Your task to perform on an android device: Open Google Chrome and click the shortcut for Amazon.com Image 0: 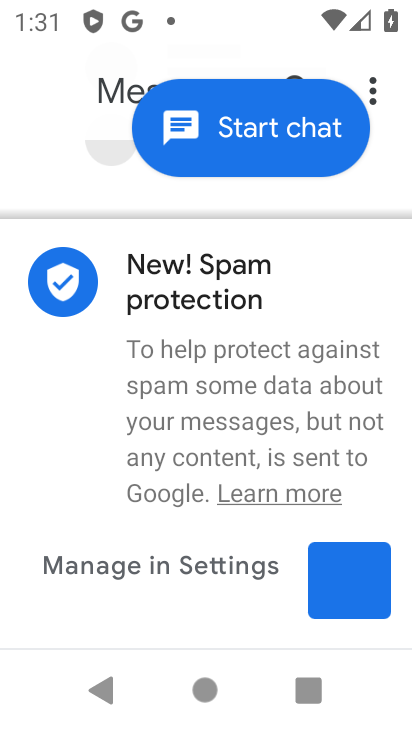
Step 0: press home button
Your task to perform on an android device: Open Google Chrome and click the shortcut for Amazon.com Image 1: 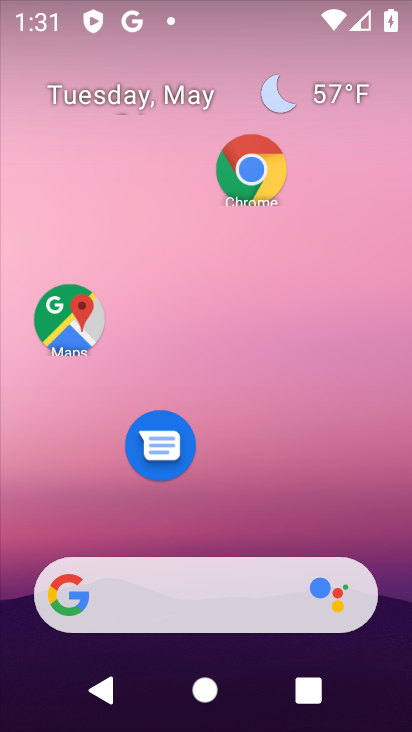
Step 1: drag from (220, 720) to (221, 24)
Your task to perform on an android device: Open Google Chrome and click the shortcut for Amazon.com Image 2: 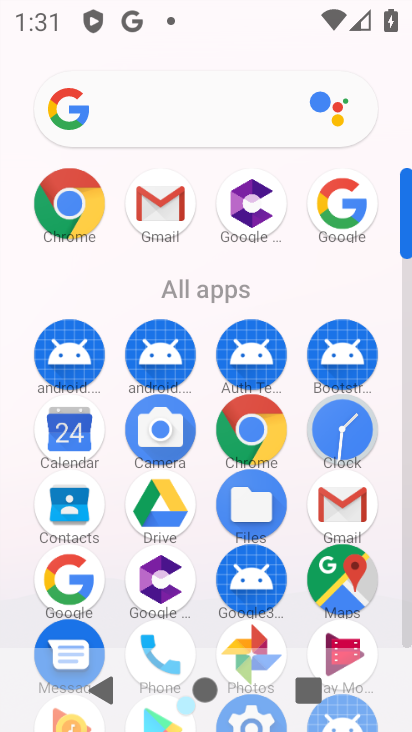
Step 2: click (68, 196)
Your task to perform on an android device: Open Google Chrome and click the shortcut for Amazon.com Image 3: 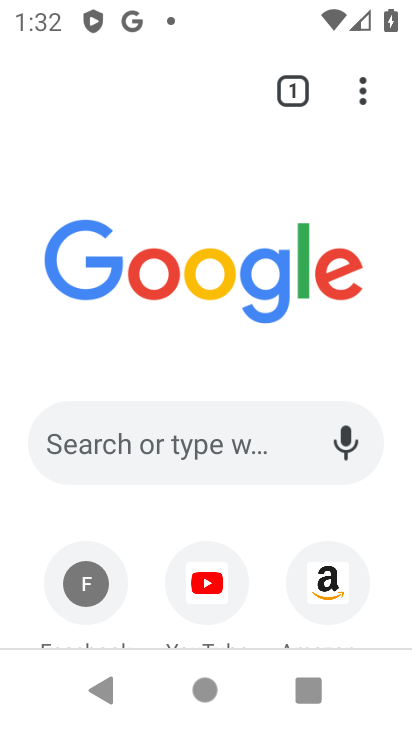
Step 3: click (332, 583)
Your task to perform on an android device: Open Google Chrome and click the shortcut for Amazon.com Image 4: 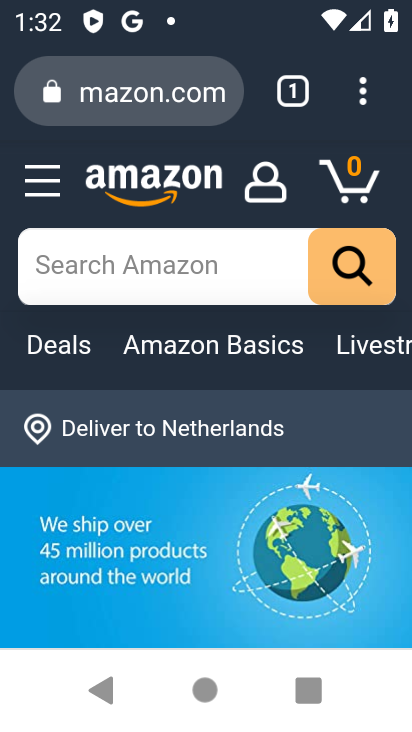
Step 4: task complete